Your task to perform on an android device: check battery use Image 0: 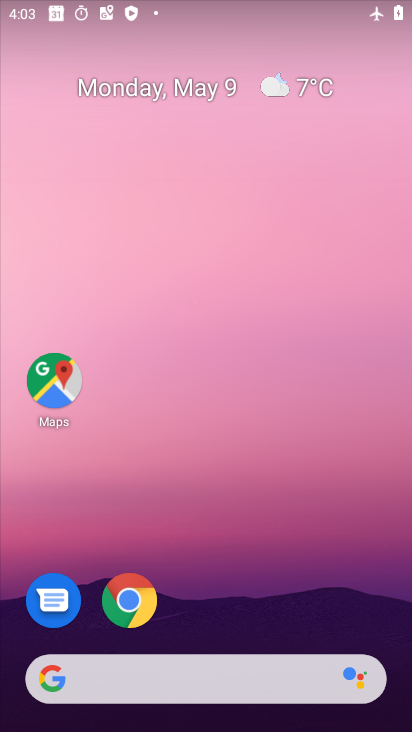
Step 0: drag from (304, 613) to (271, 156)
Your task to perform on an android device: check battery use Image 1: 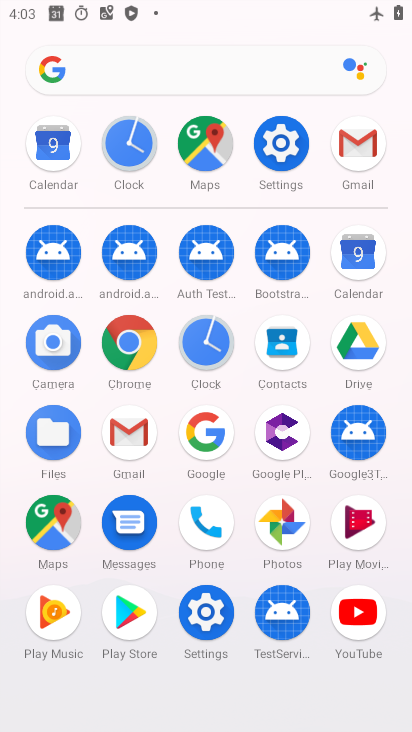
Step 1: click (293, 140)
Your task to perform on an android device: check battery use Image 2: 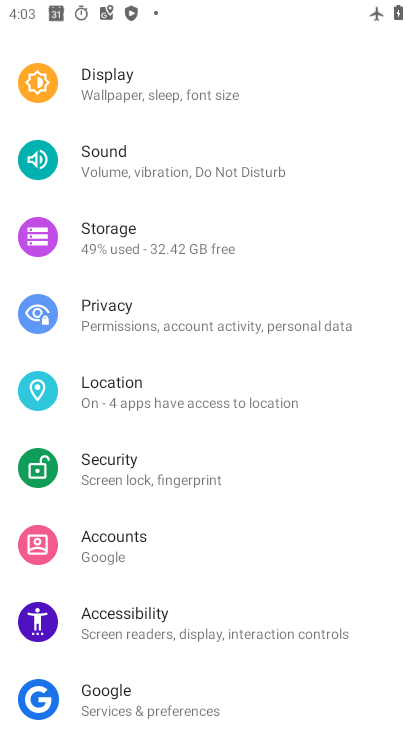
Step 2: drag from (221, 509) to (280, 688)
Your task to perform on an android device: check battery use Image 3: 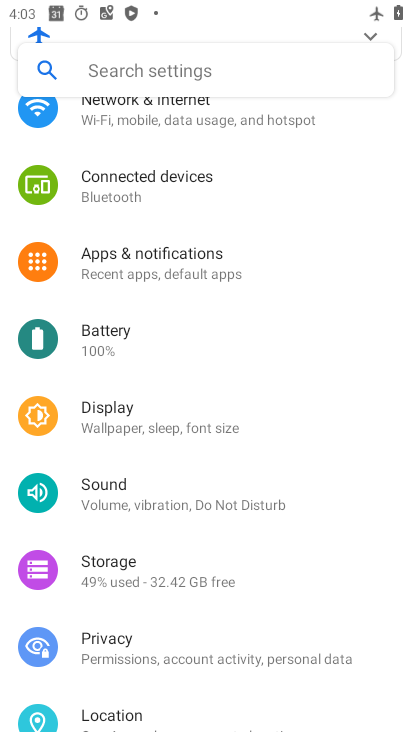
Step 3: click (114, 127)
Your task to perform on an android device: check battery use Image 4: 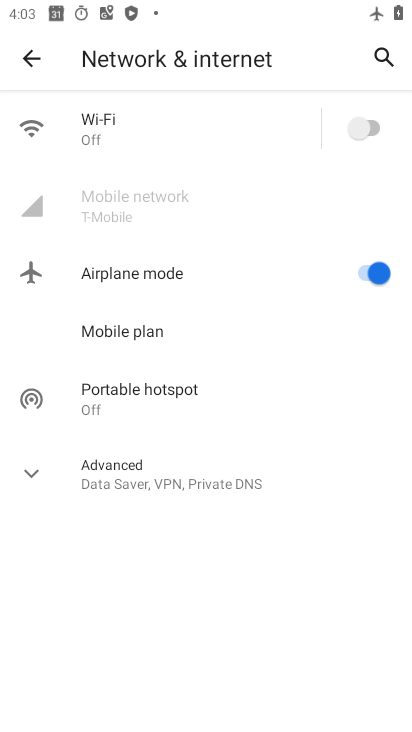
Step 4: click (21, 60)
Your task to perform on an android device: check battery use Image 5: 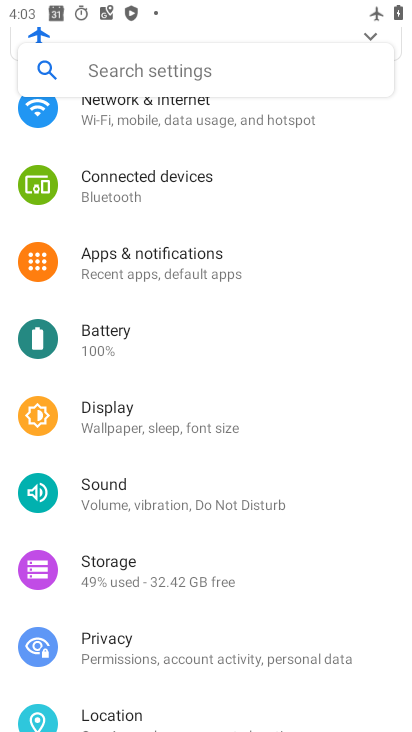
Step 5: click (133, 333)
Your task to perform on an android device: check battery use Image 6: 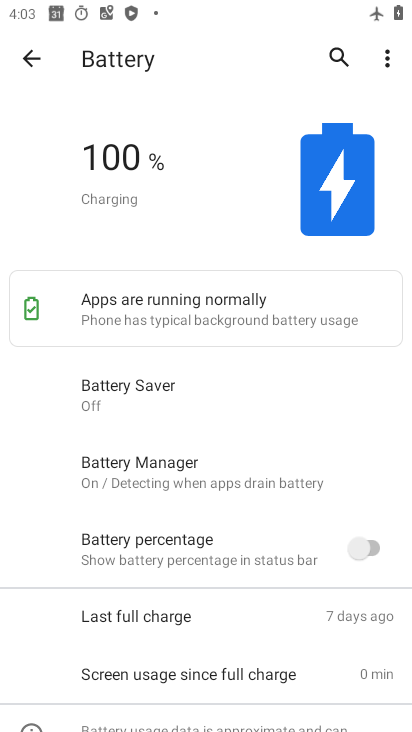
Step 6: task complete